Your task to perform on an android device: change text size in settings app Image 0: 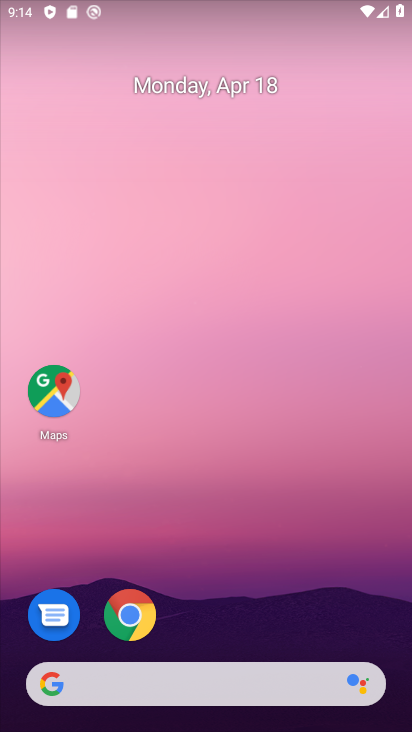
Step 0: drag from (243, 656) to (307, 242)
Your task to perform on an android device: change text size in settings app Image 1: 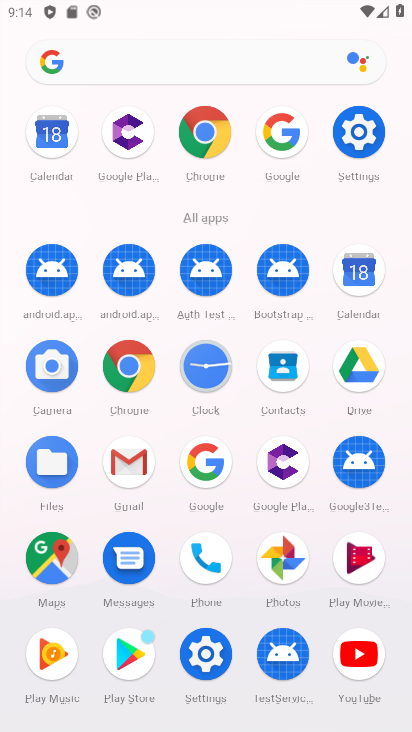
Step 1: click (363, 132)
Your task to perform on an android device: change text size in settings app Image 2: 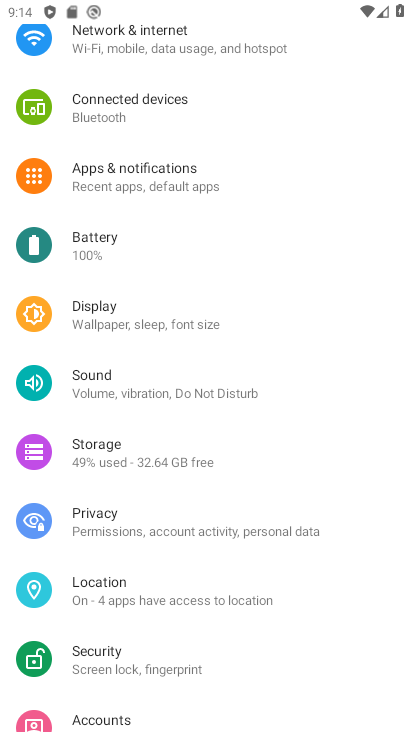
Step 2: drag from (230, 697) to (239, 434)
Your task to perform on an android device: change text size in settings app Image 3: 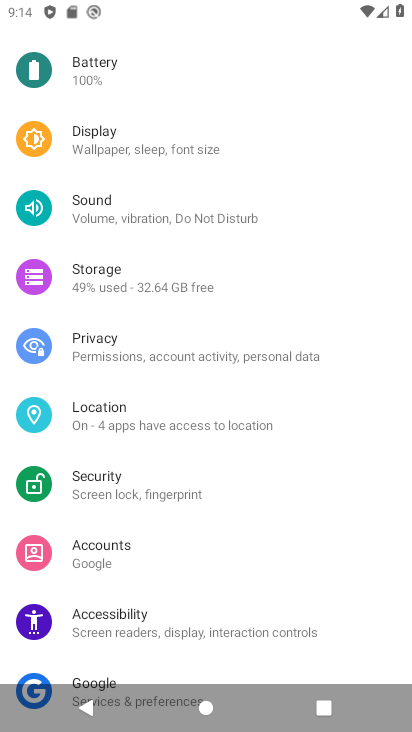
Step 3: drag from (264, 653) to (264, 294)
Your task to perform on an android device: change text size in settings app Image 4: 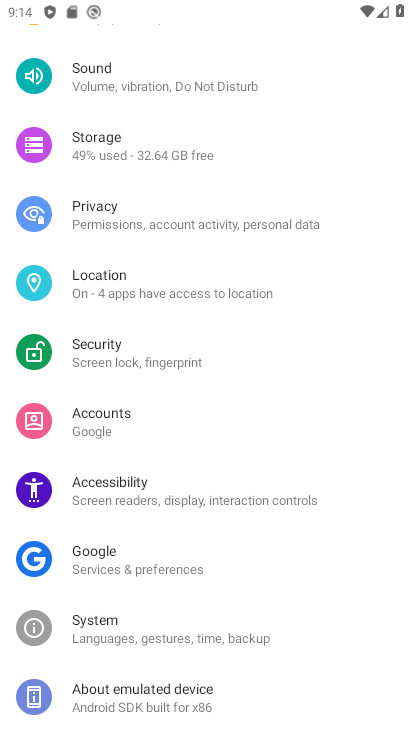
Step 4: click (105, 493)
Your task to perform on an android device: change text size in settings app Image 5: 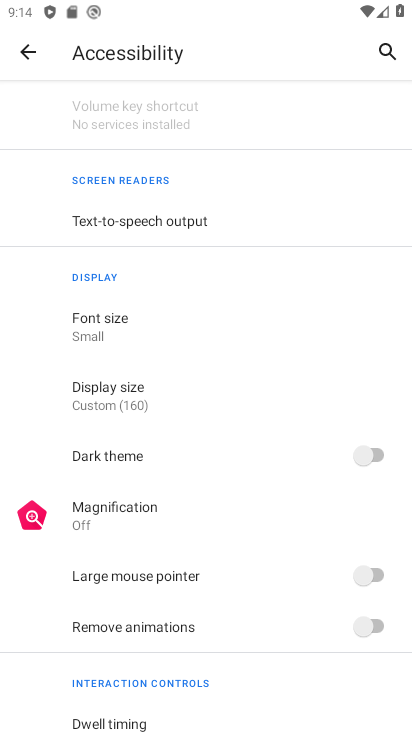
Step 5: click (103, 348)
Your task to perform on an android device: change text size in settings app Image 6: 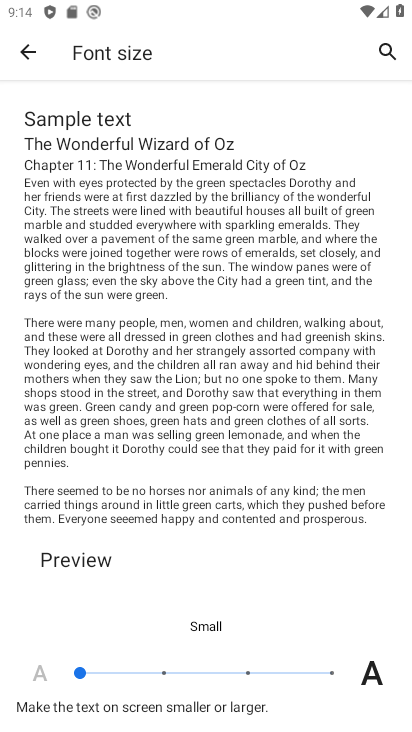
Step 6: click (160, 669)
Your task to perform on an android device: change text size in settings app Image 7: 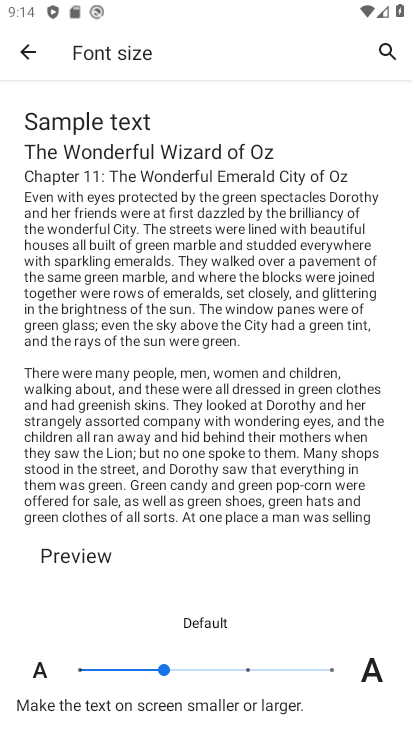
Step 7: task complete